Your task to perform on an android device: turn on showing notifications on the lock screen Image 0: 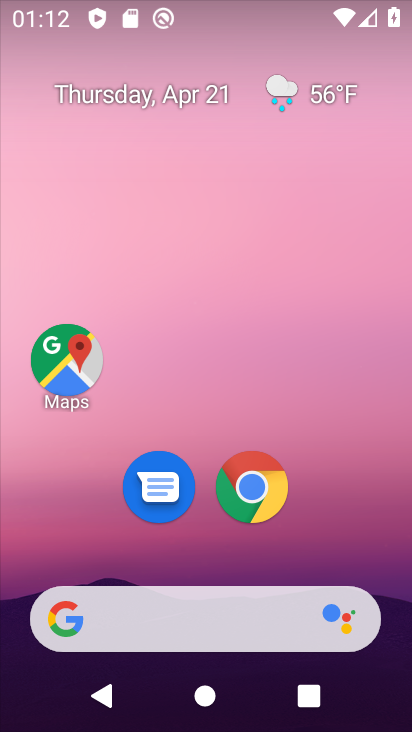
Step 0: drag from (325, 529) to (361, 92)
Your task to perform on an android device: turn on showing notifications on the lock screen Image 1: 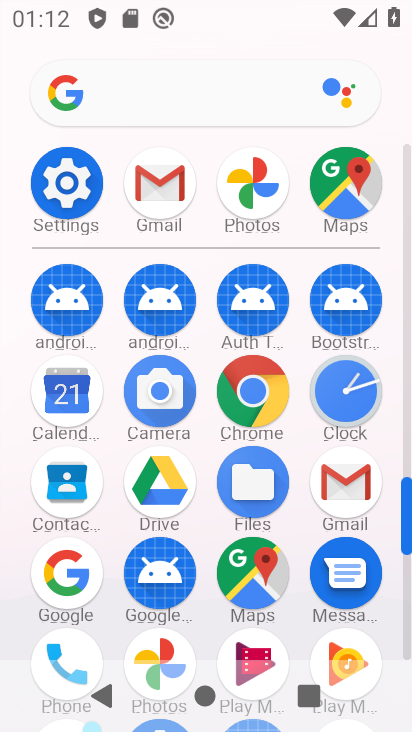
Step 1: click (59, 189)
Your task to perform on an android device: turn on showing notifications on the lock screen Image 2: 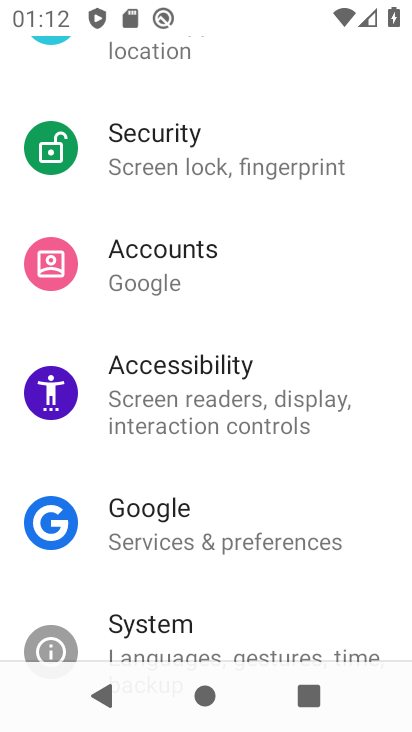
Step 2: drag from (266, 391) to (290, 445)
Your task to perform on an android device: turn on showing notifications on the lock screen Image 3: 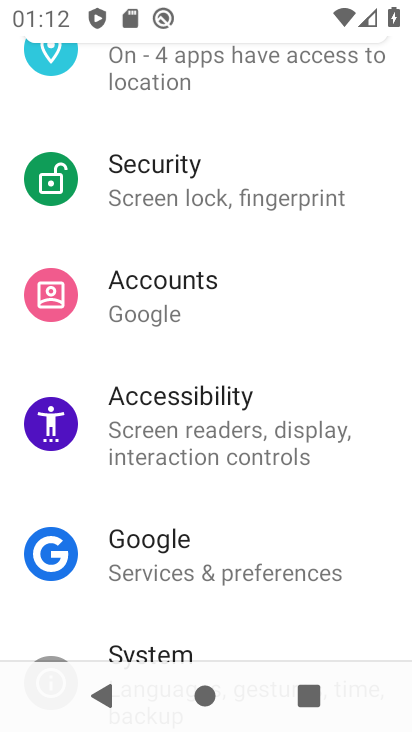
Step 3: drag from (305, 340) to (325, 438)
Your task to perform on an android device: turn on showing notifications on the lock screen Image 4: 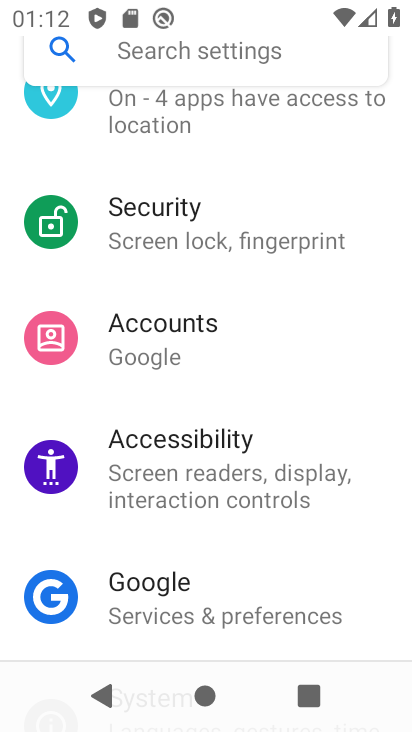
Step 4: drag from (314, 369) to (319, 431)
Your task to perform on an android device: turn on showing notifications on the lock screen Image 5: 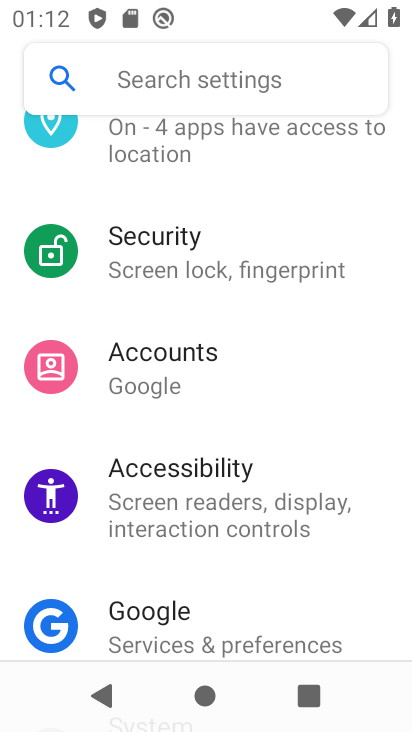
Step 5: drag from (311, 357) to (310, 437)
Your task to perform on an android device: turn on showing notifications on the lock screen Image 6: 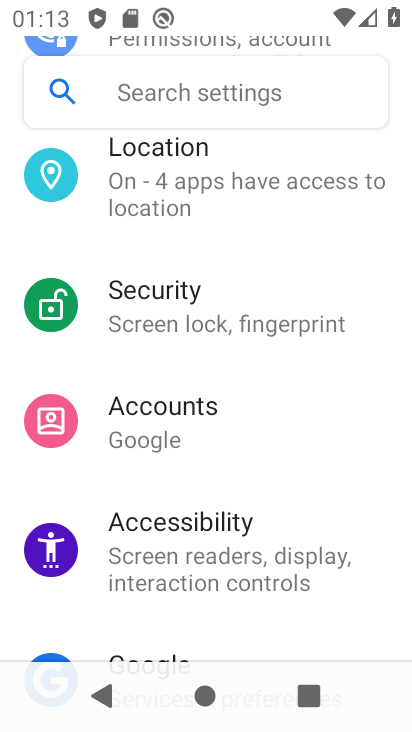
Step 6: drag from (300, 297) to (300, 395)
Your task to perform on an android device: turn on showing notifications on the lock screen Image 7: 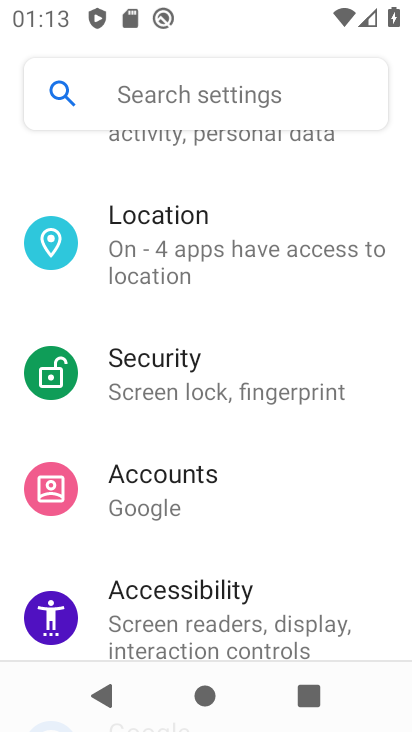
Step 7: drag from (275, 268) to (266, 352)
Your task to perform on an android device: turn on showing notifications on the lock screen Image 8: 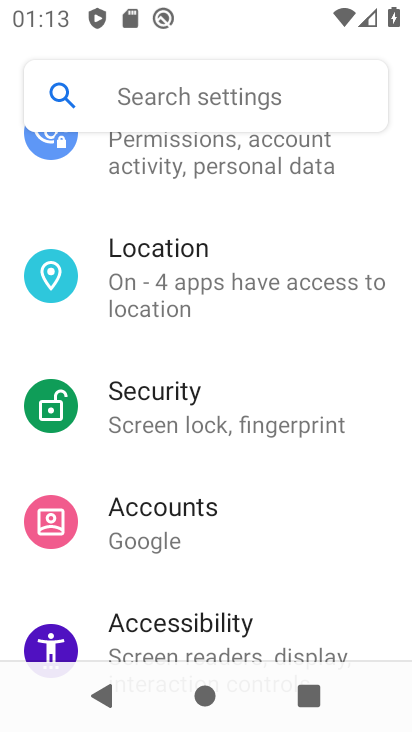
Step 8: drag from (266, 281) to (275, 354)
Your task to perform on an android device: turn on showing notifications on the lock screen Image 9: 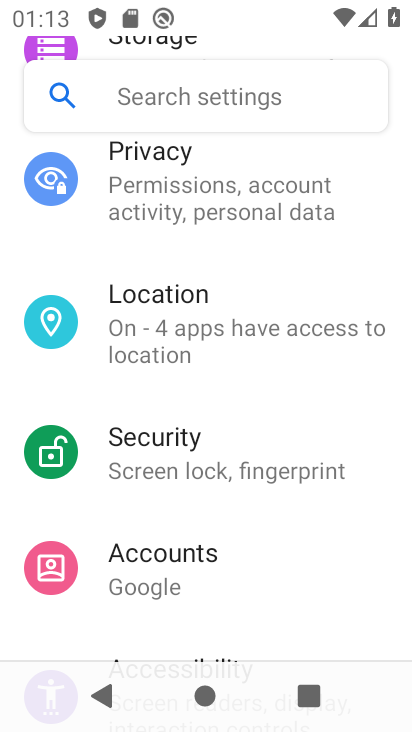
Step 9: drag from (307, 324) to (247, 473)
Your task to perform on an android device: turn on showing notifications on the lock screen Image 10: 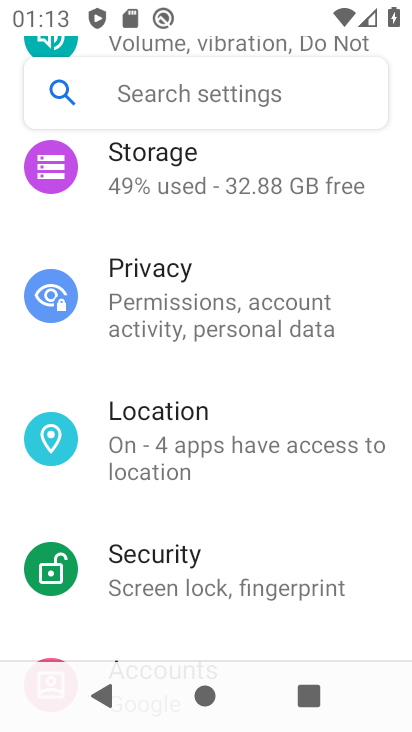
Step 10: drag from (214, 320) to (196, 440)
Your task to perform on an android device: turn on showing notifications on the lock screen Image 11: 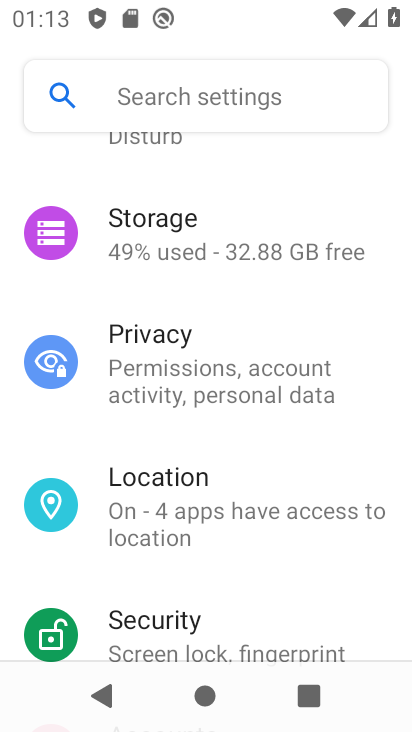
Step 11: drag from (184, 360) to (154, 498)
Your task to perform on an android device: turn on showing notifications on the lock screen Image 12: 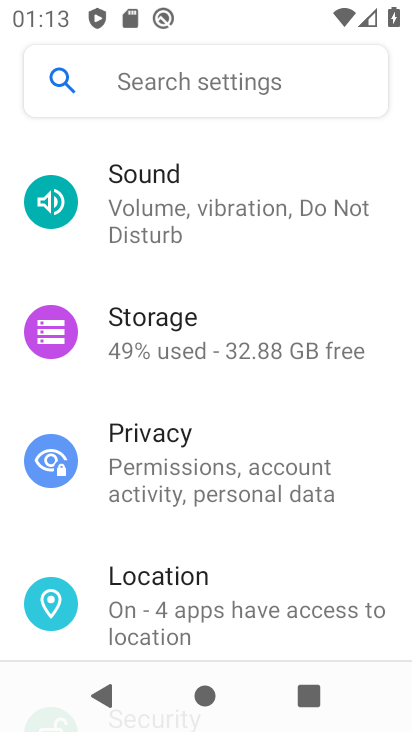
Step 12: drag from (223, 258) to (234, 360)
Your task to perform on an android device: turn on showing notifications on the lock screen Image 13: 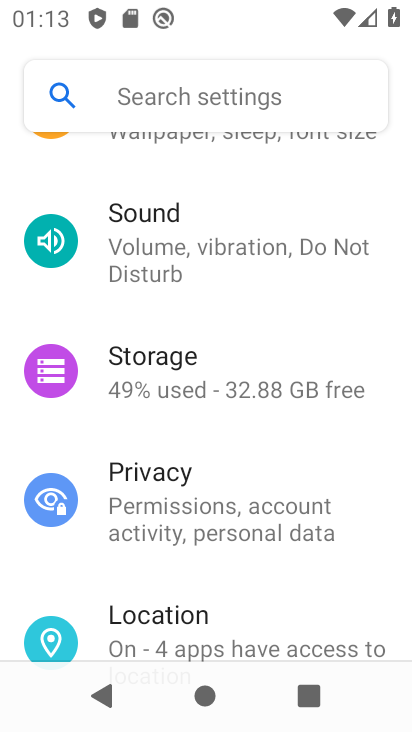
Step 13: drag from (256, 215) to (221, 365)
Your task to perform on an android device: turn on showing notifications on the lock screen Image 14: 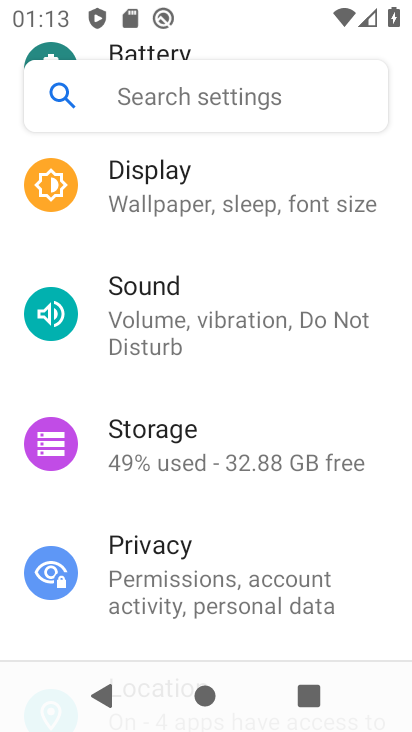
Step 14: drag from (219, 302) to (216, 362)
Your task to perform on an android device: turn on showing notifications on the lock screen Image 15: 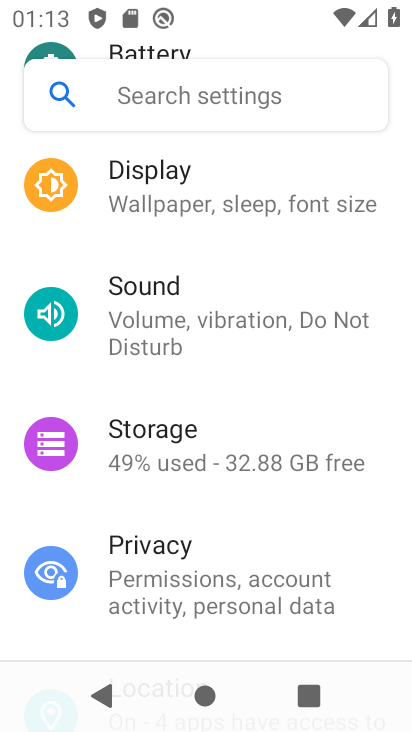
Step 15: drag from (210, 310) to (190, 390)
Your task to perform on an android device: turn on showing notifications on the lock screen Image 16: 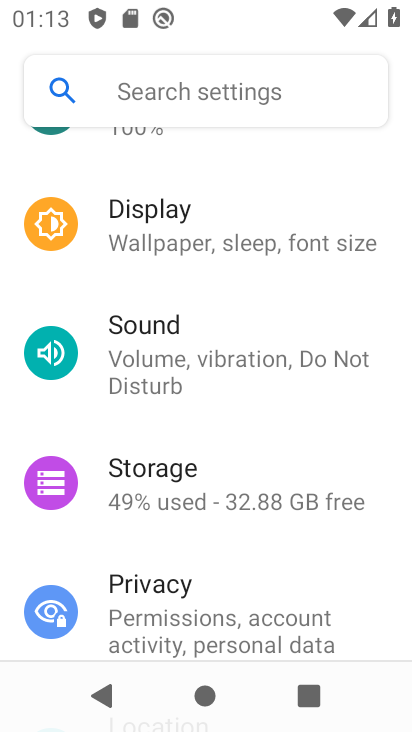
Step 16: drag from (207, 296) to (208, 375)
Your task to perform on an android device: turn on showing notifications on the lock screen Image 17: 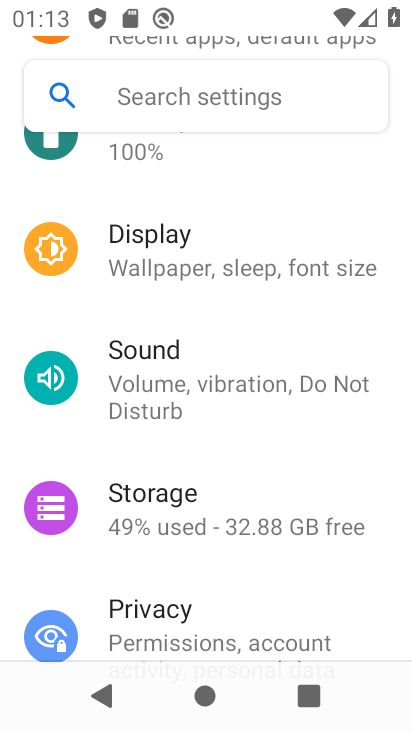
Step 17: drag from (220, 262) to (221, 366)
Your task to perform on an android device: turn on showing notifications on the lock screen Image 18: 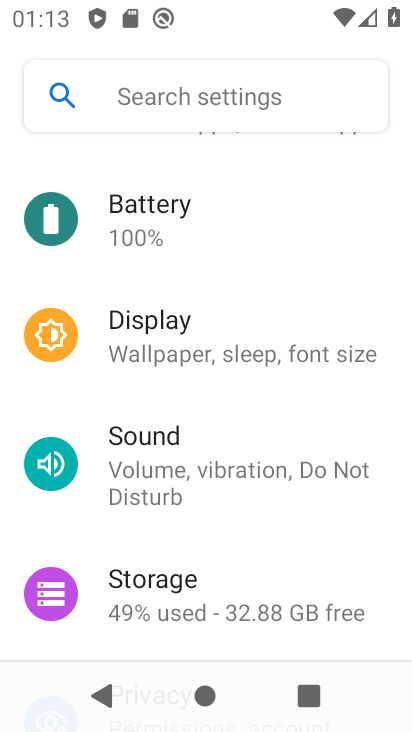
Step 18: drag from (200, 271) to (201, 366)
Your task to perform on an android device: turn on showing notifications on the lock screen Image 19: 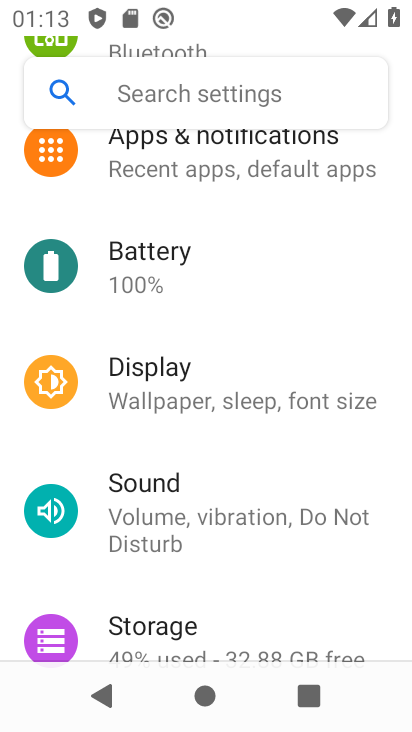
Step 19: drag from (215, 268) to (221, 381)
Your task to perform on an android device: turn on showing notifications on the lock screen Image 20: 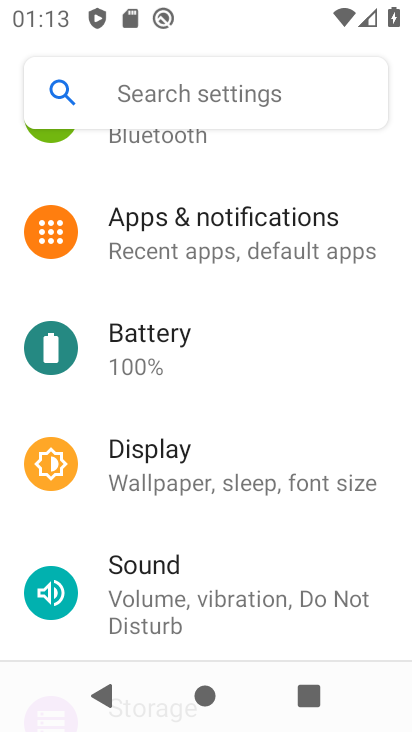
Step 20: click (231, 241)
Your task to perform on an android device: turn on showing notifications on the lock screen Image 21: 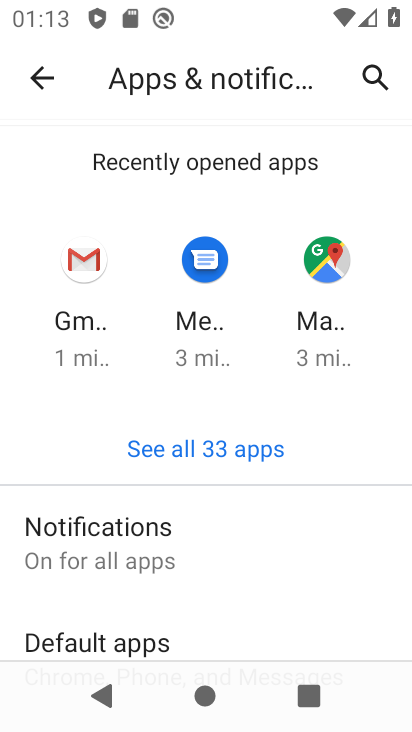
Step 21: click (181, 534)
Your task to perform on an android device: turn on showing notifications on the lock screen Image 22: 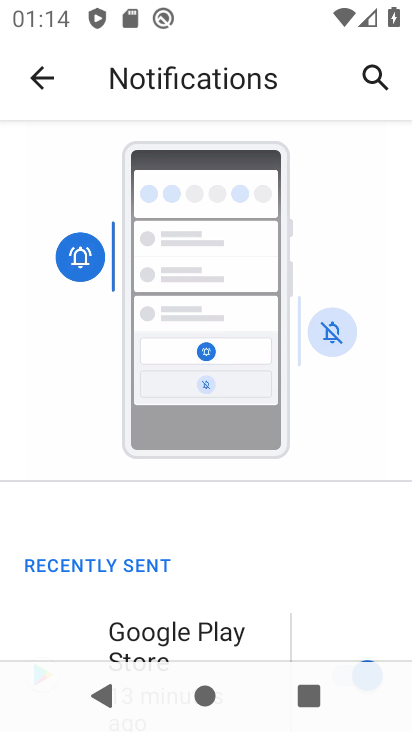
Step 22: drag from (192, 558) to (220, 388)
Your task to perform on an android device: turn on showing notifications on the lock screen Image 23: 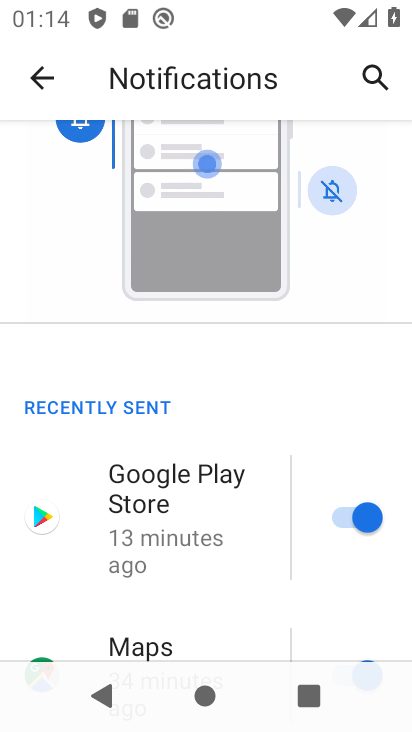
Step 23: drag from (228, 500) to (250, 356)
Your task to perform on an android device: turn on showing notifications on the lock screen Image 24: 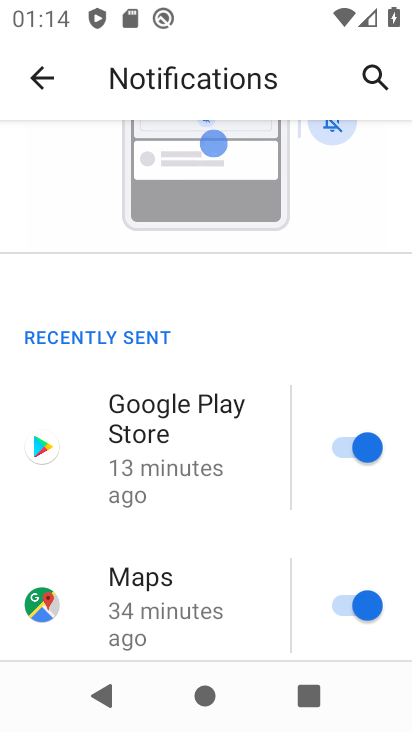
Step 24: drag from (226, 557) to (241, 437)
Your task to perform on an android device: turn on showing notifications on the lock screen Image 25: 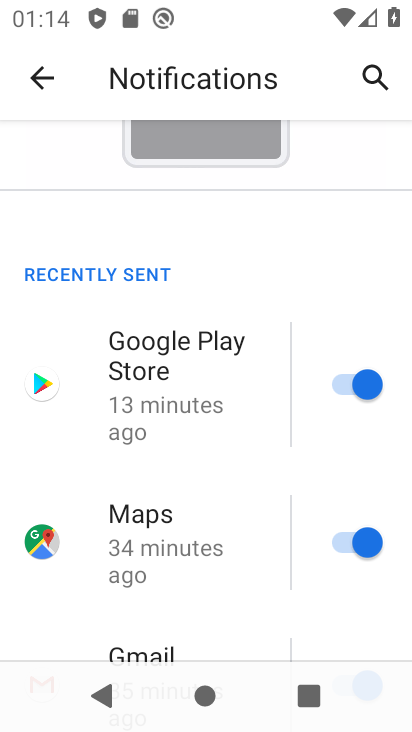
Step 25: drag from (212, 587) to (239, 480)
Your task to perform on an android device: turn on showing notifications on the lock screen Image 26: 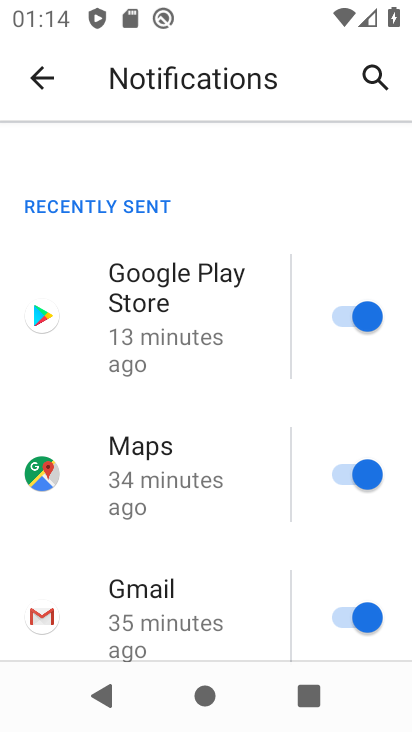
Step 26: drag from (223, 574) to (234, 445)
Your task to perform on an android device: turn on showing notifications on the lock screen Image 27: 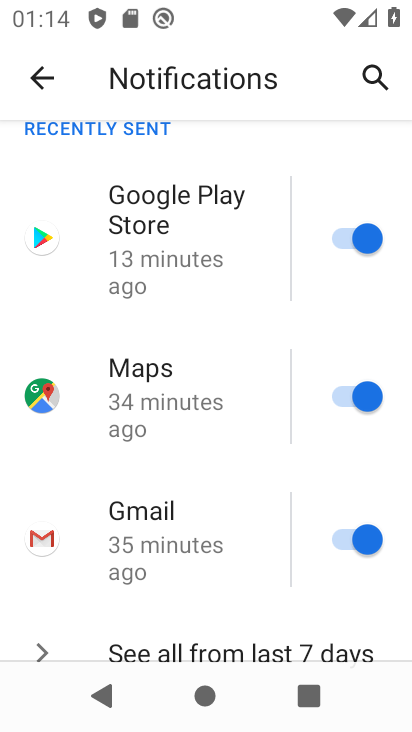
Step 27: drag from (237, 538) to (260, 407)
Your task to perform on an android device: turn on showing notifications on the lock screen Image 28: 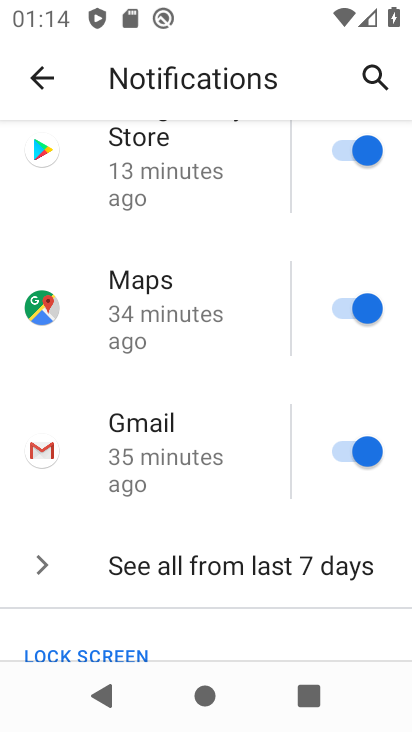
Step 28: drag from (263, 517) to (266, 402)
Your task to perform on an android device: turn on showing notifications on the lock screen Image 29: 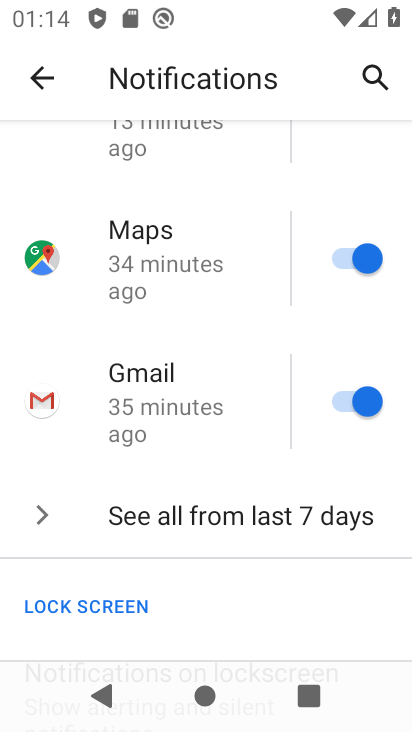
Step 29: drag from (248, 500) to (263, 402)
Your task to perform on an android device: turn on showing notifications on the lock screen Image 30: 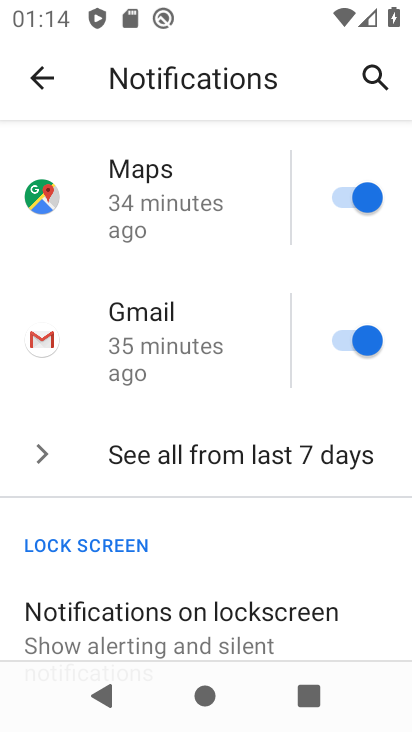
Step 30: drag from (228, 530) to (252, 416)
Your task to perform on an android device: turn on showing notifications on the lock screen Image 31: 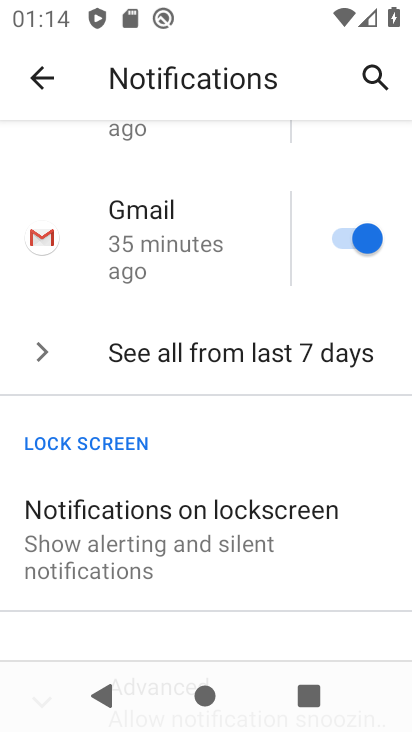
Step 31: click (233, 539)
Your task to perform on an android device: turn on showing notifications on the lock screen Image 32: 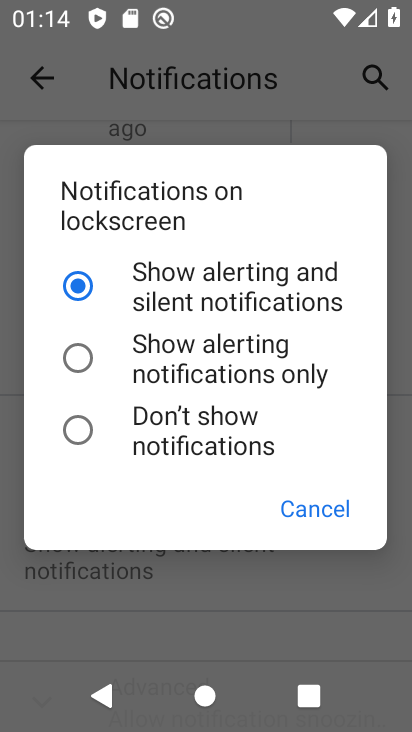
Step 32: click (275, 281)
Your task to perform on an android device: turn on showing notifications on the lock screen Image 33: 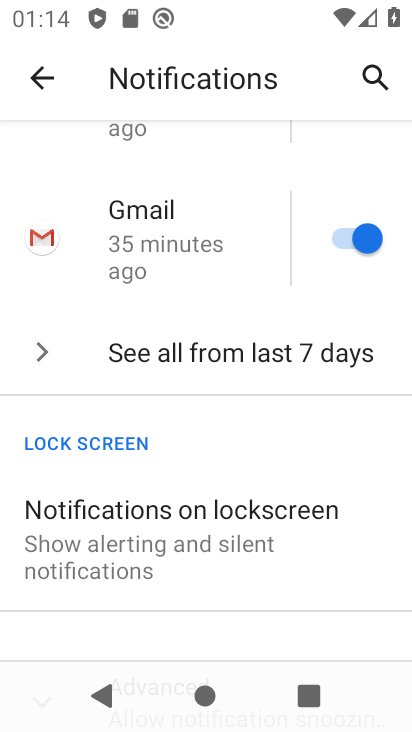
Step 33: task complete